Your task to perform on an android device: turn off location history Image 0: 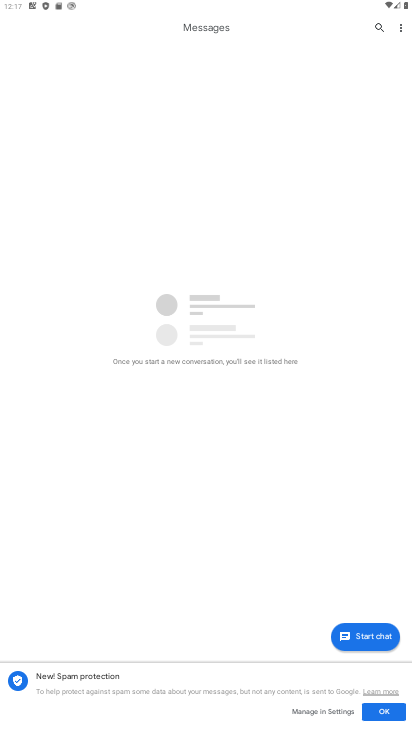
Step 0: press home button
Your task to perform on an android device: turn off location history Image 1: 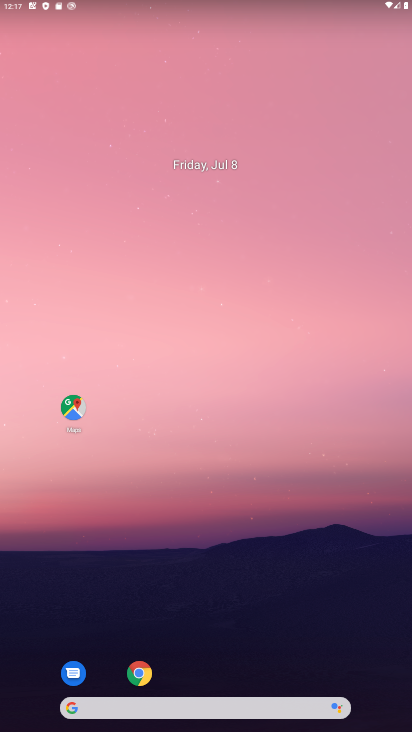
Step 1: drag from (281, 640) to (327, 20)
Your task to perform on an android device: turn off location history Image 2: 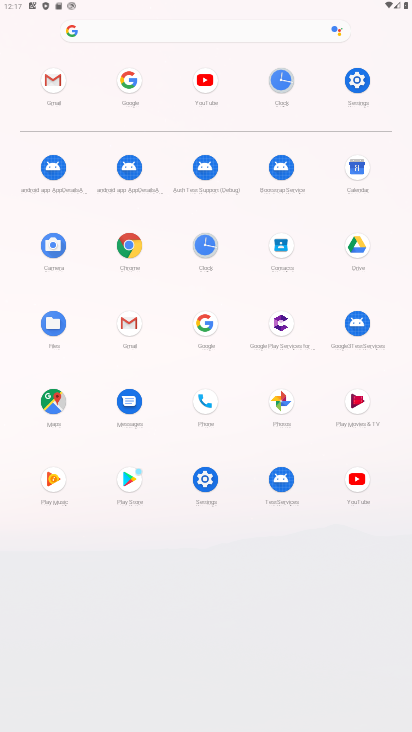
Step 2: click (358, 79)
Your task to perform on an android device: turn off location history Image 3: 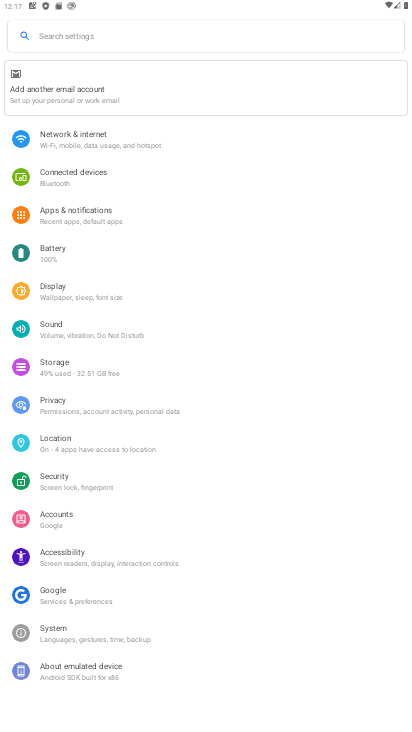
Step 3: click (76, 447)
Your task to perform on an android device: turn off location history Image 4: 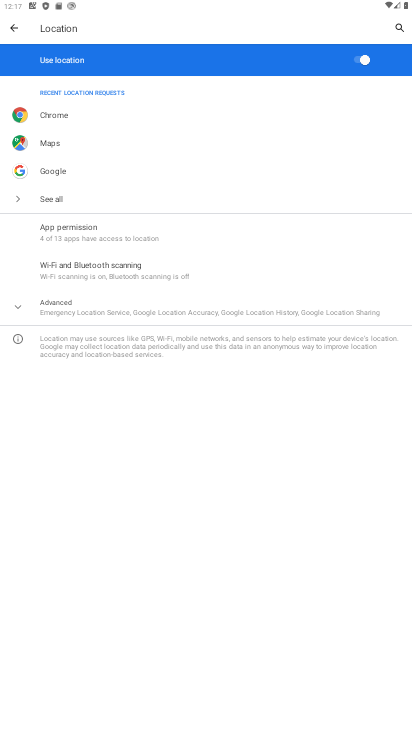
Step 4: click (126, 307)
Your task to perform on an android device: turn off location history Image 5: 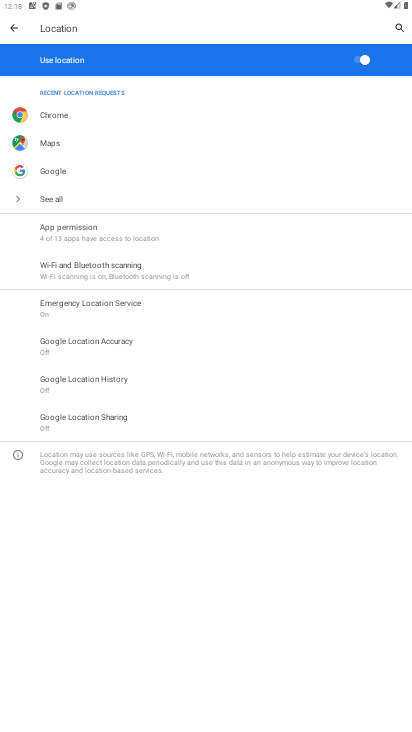
Step 5: click (98, 381)
Your task to perform on an android device: turn off location history Image 6: 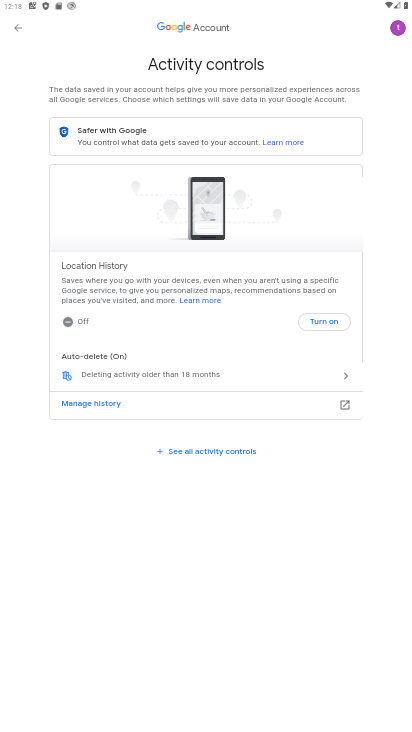
Step 6: task complete